Your task to perform on an android device: Go to ESPN.com Image 0: 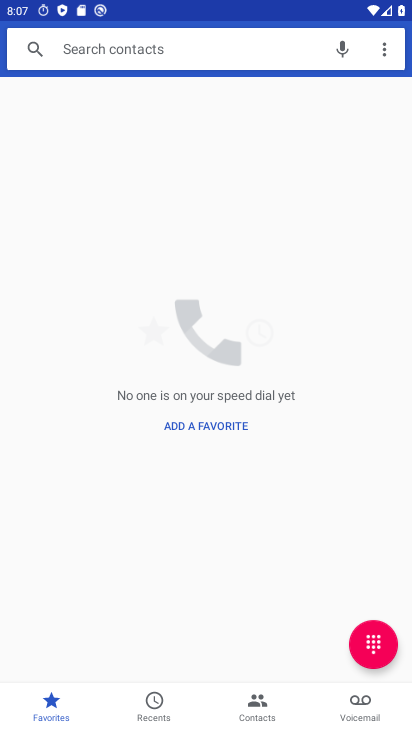
Step 0: press home button
Your task to perform on an android device: Go to ESPN.com Image 1: 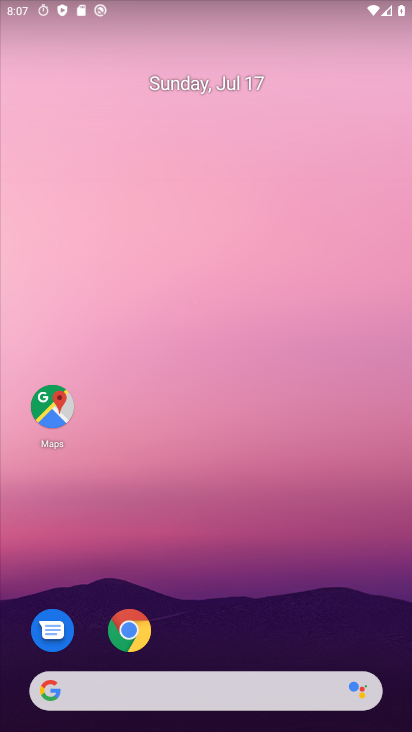
Step 1: click (88, 680)
Your task to perform on an android device: Go to ESPN.com Image 2: 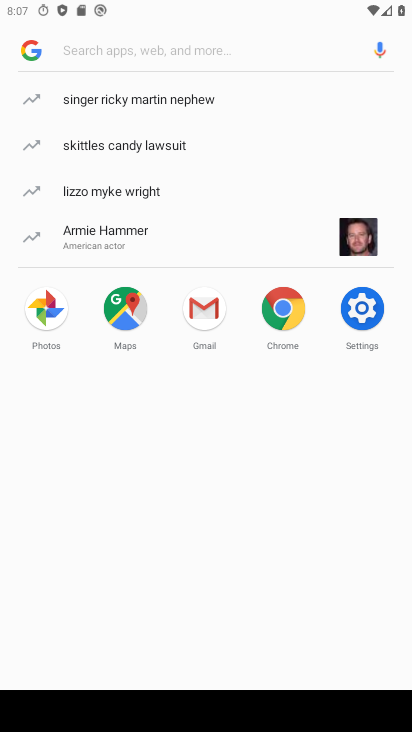
Step 2: type "ESPN.com"
Your task to perform on an android device: Go to ESPN.com Image 3: 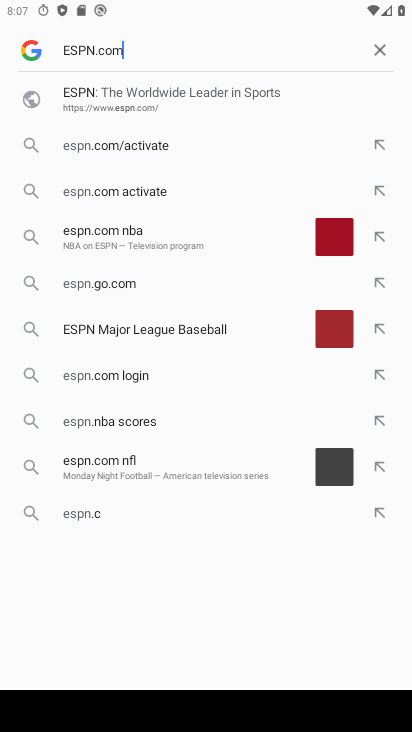
Step 3: type ""
Your task to perform on an android device: Go to ESPN.com Image 4: 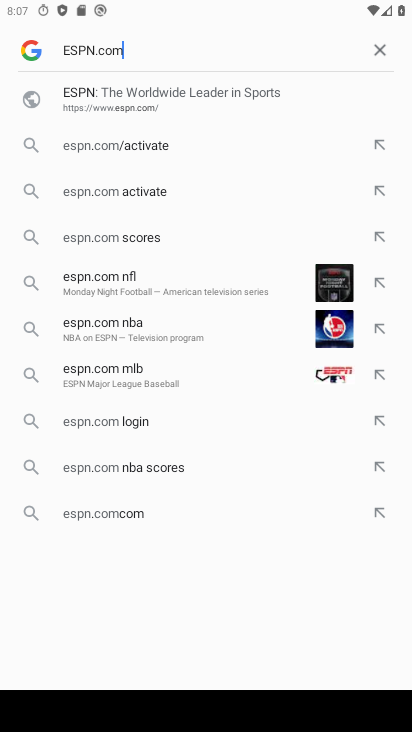
Step 4: type ""
Your task to perform on an android device: Go to ESPN.com Image 5: 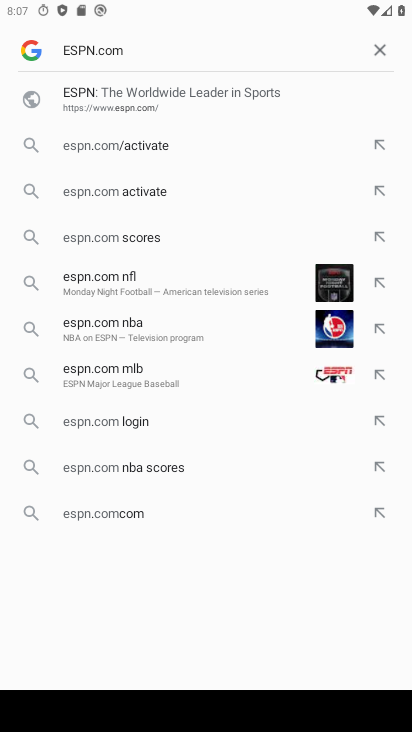
Step 5: type ""
Your task to perform on an android device: Go to ESPN.com Image 6: 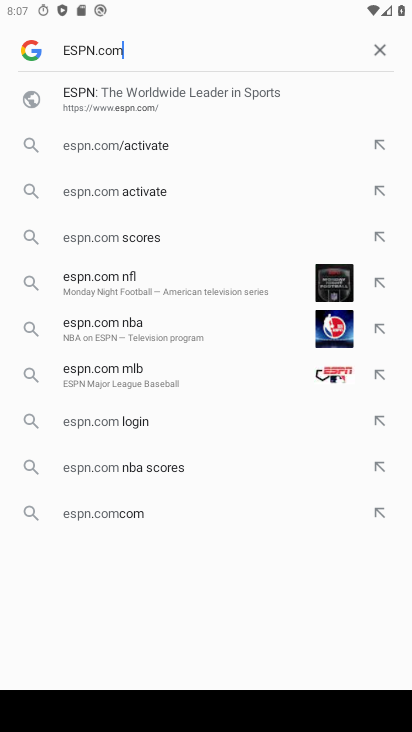
Step 6: task complete